Your task to perform on an android device: Play the last video I watched on Youtube Image 0: 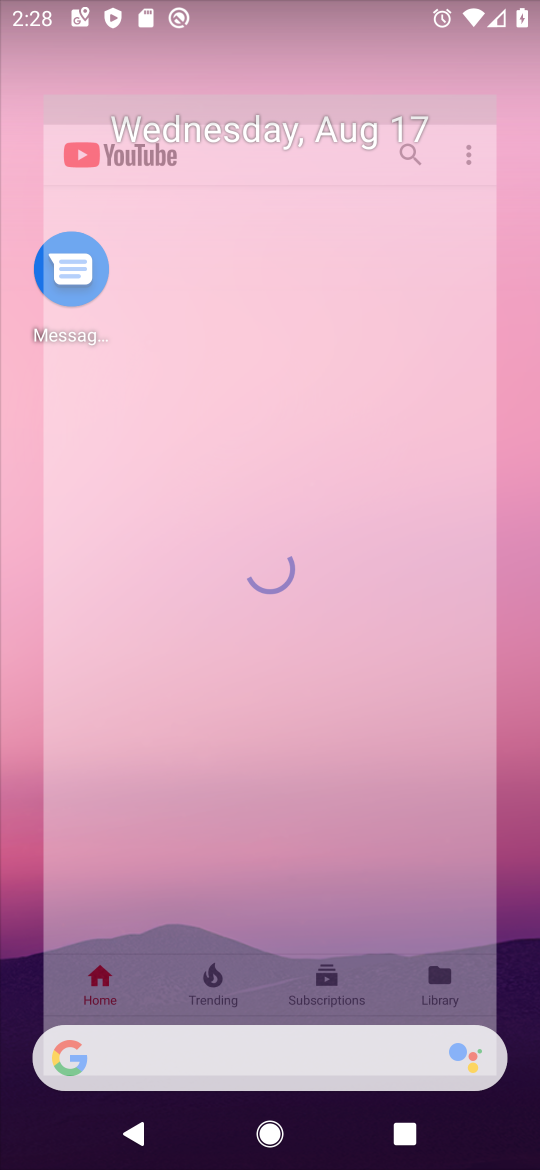
Step 0: press back button
Your task to perform on an android device: Play the last video I watched on Youtube Image 1: 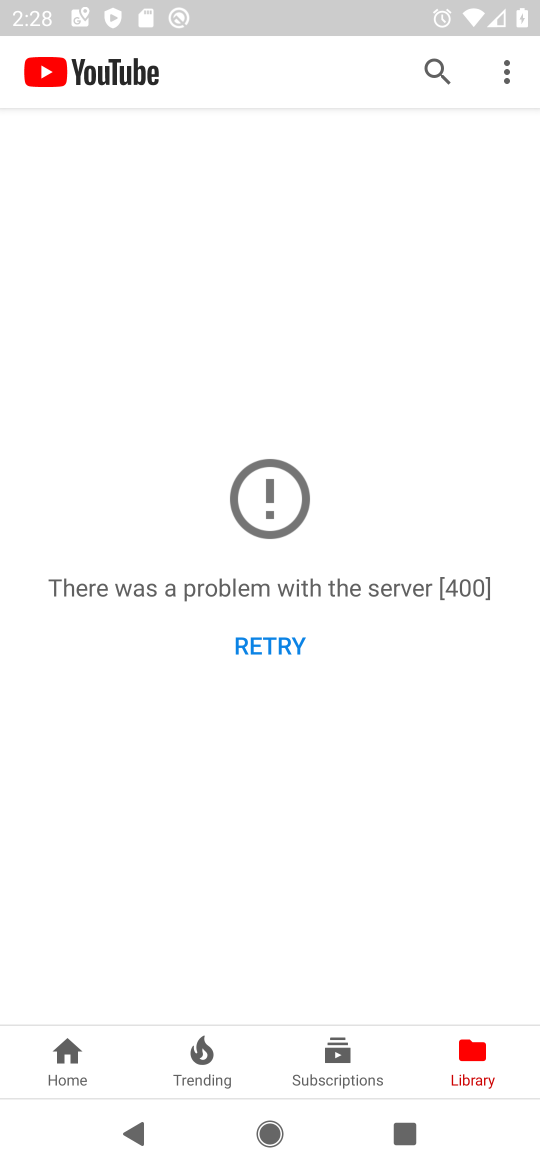
Step 1: click (65, 1083)
Your task to perform on an android device: Play the last video I watched on Youtube Image 2: 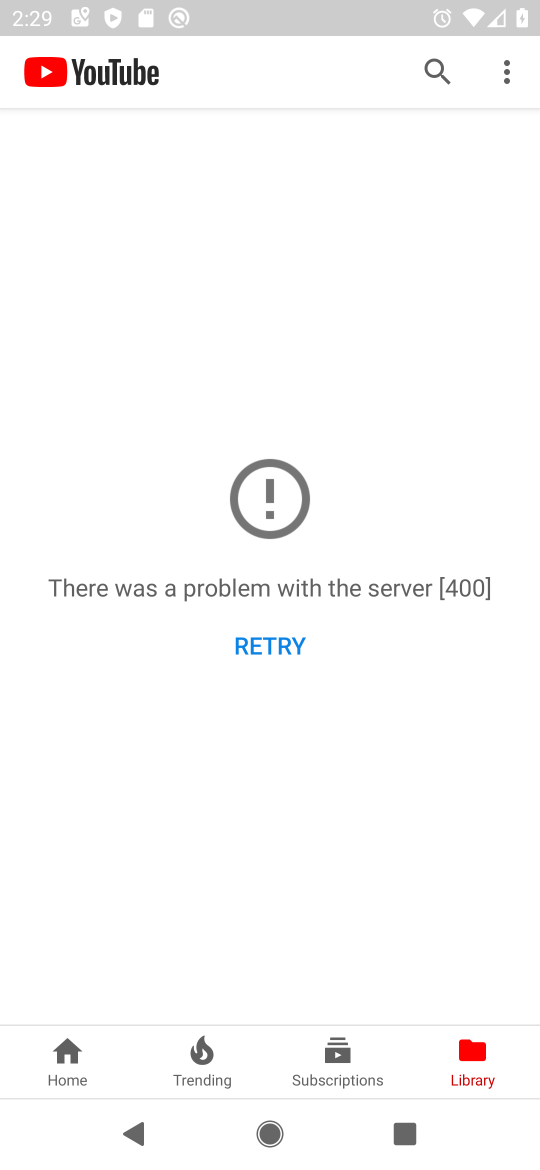
Step 2: click (252, 630)
Your task to perform on an android device: Play the last video I watched on Youtube Image 3: 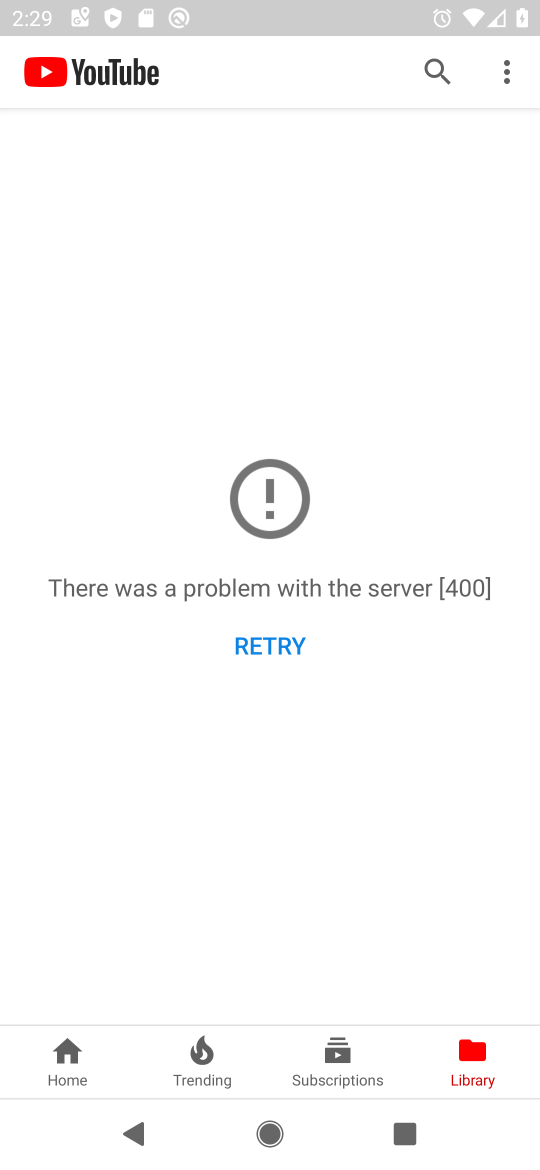
Step 3: click (279, 637)
Your task to perform on an android device: Play the last video I watched on Youtube Image 4: 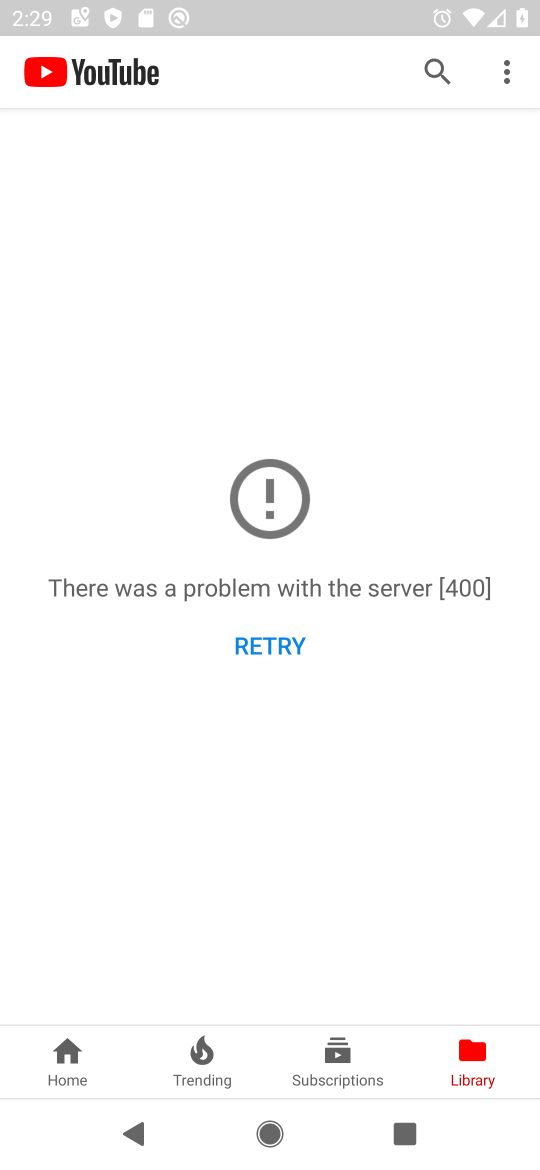
Step 4: task complete